Your task to perform on an android device: Go to Maps Image 0: 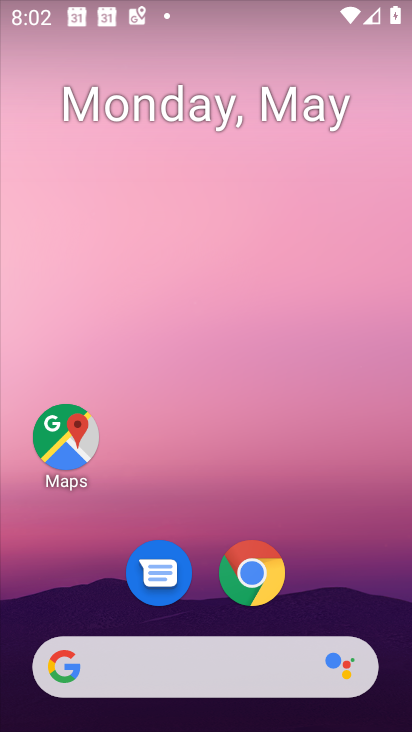
Step 0: drag from (178, 720) to (295, 111)
Your task to perform on an android device: Go to Maps Image 1: 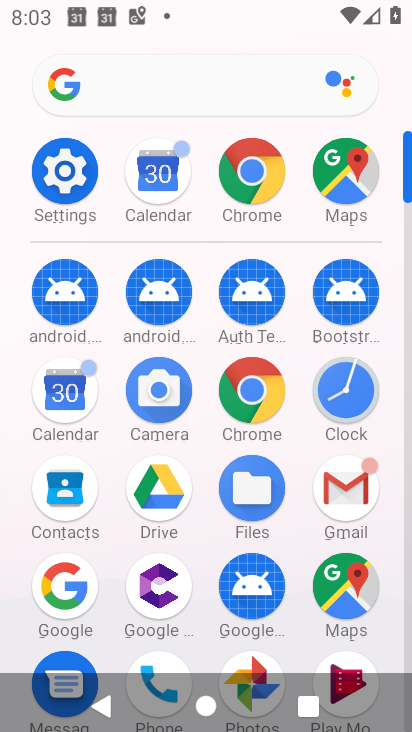
Step 1: click (340, 170)
Your task to perform on an android device: Go to Maps Image 2: 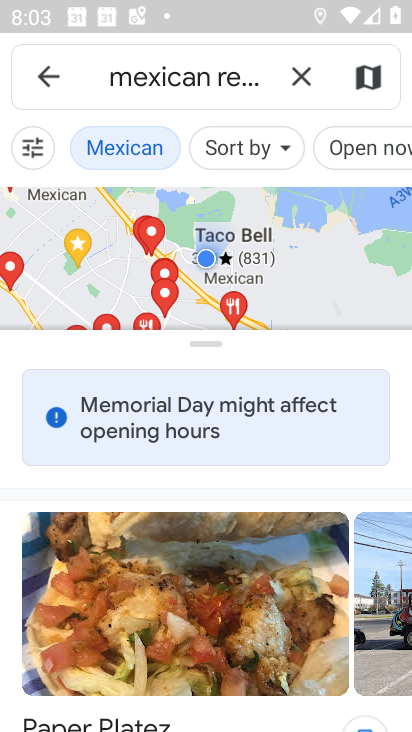
Step 2: task complete